Your task to perform on an android device: open chrome and create a bookmark for the current page Image 0: 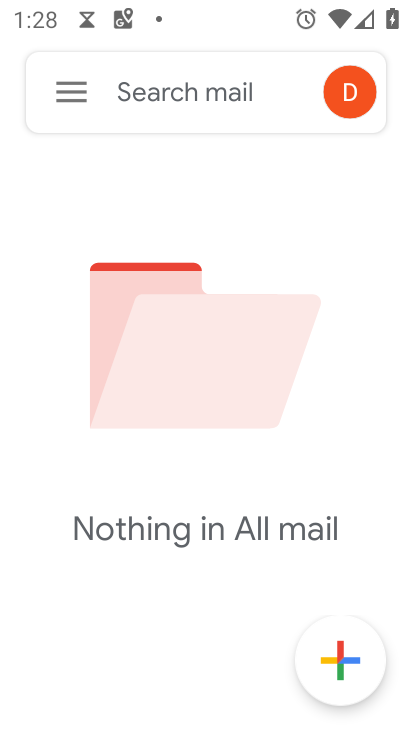
Step 0: press home button
Your task to perform on an android device: open chrome and create a bookmark for the current page Image 1: 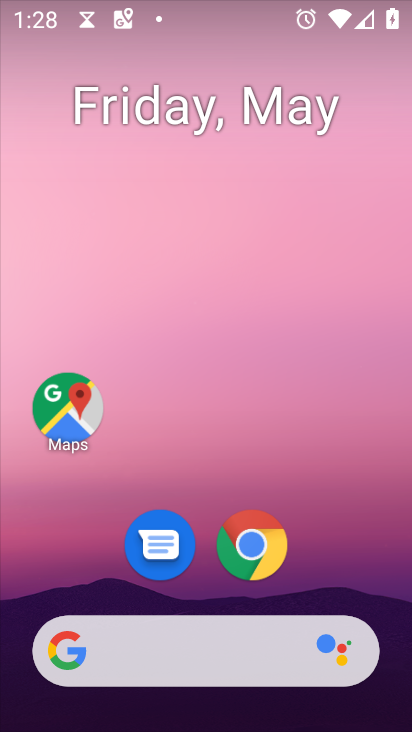
Step 1: click (260, 547)
Your task to perform on an android device: open chrome and create a bookmark for the current page Image 2: 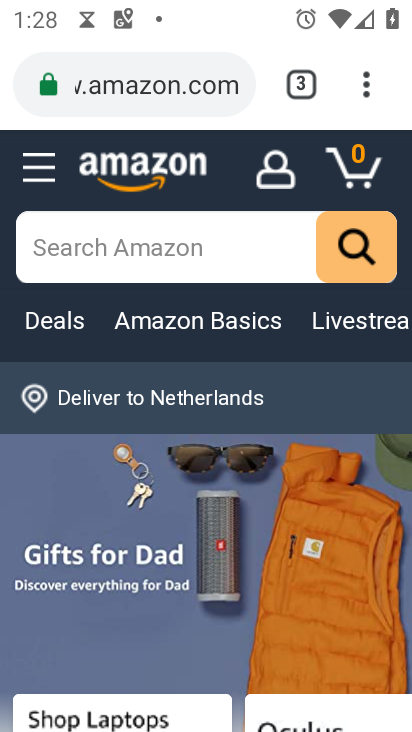
Step 2: click (371, 84)
Your task to perform on an android device: open chrome and create a bookmark for the current page Image 3: 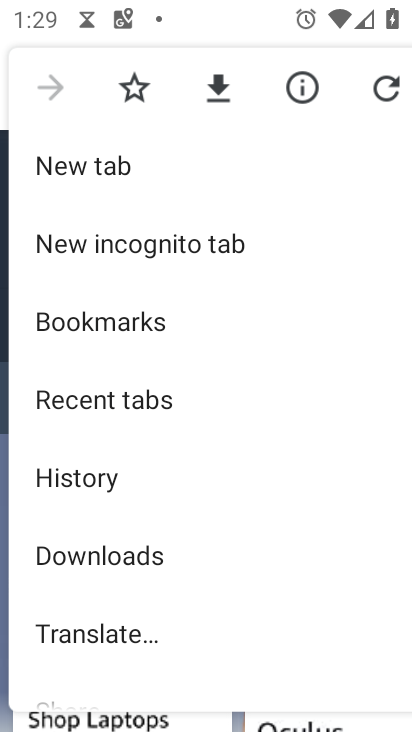
Step 3: drag from (259, 573) to (244, 643)
Your task to perform on an android device: open chrome and create a bookmark for the current page Image 4: 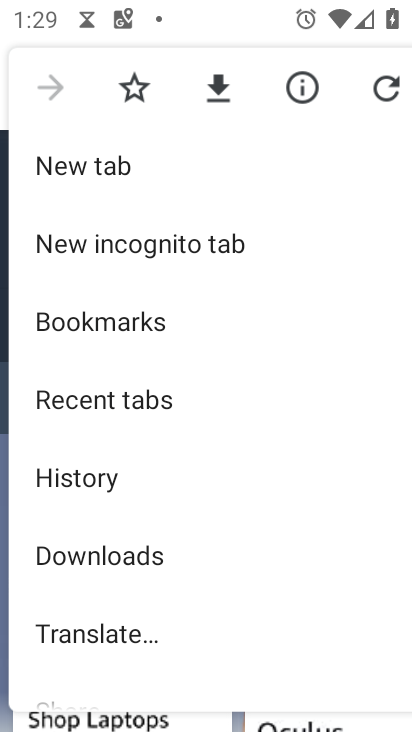
Step 4: click (137, 99)
Your task to perform on an android device: open chrome and create a bookmark for the current page Image 5: 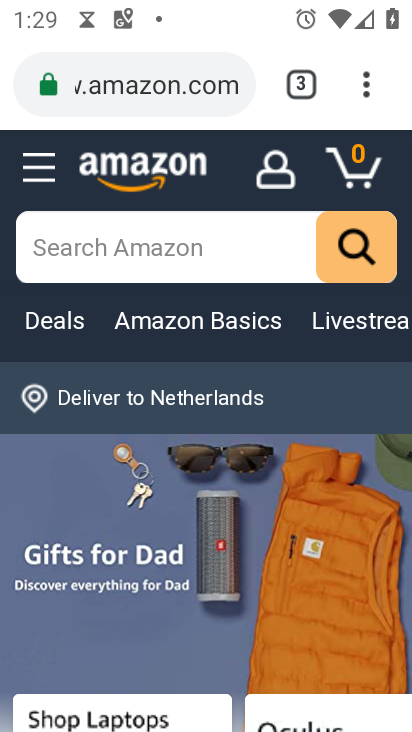
Step 5: task complete